Your task to perform on an android device: open app "Reddit" (install if not already installed) and enter user name: "issues@yahoo.com" and password: "belt" Image 0: 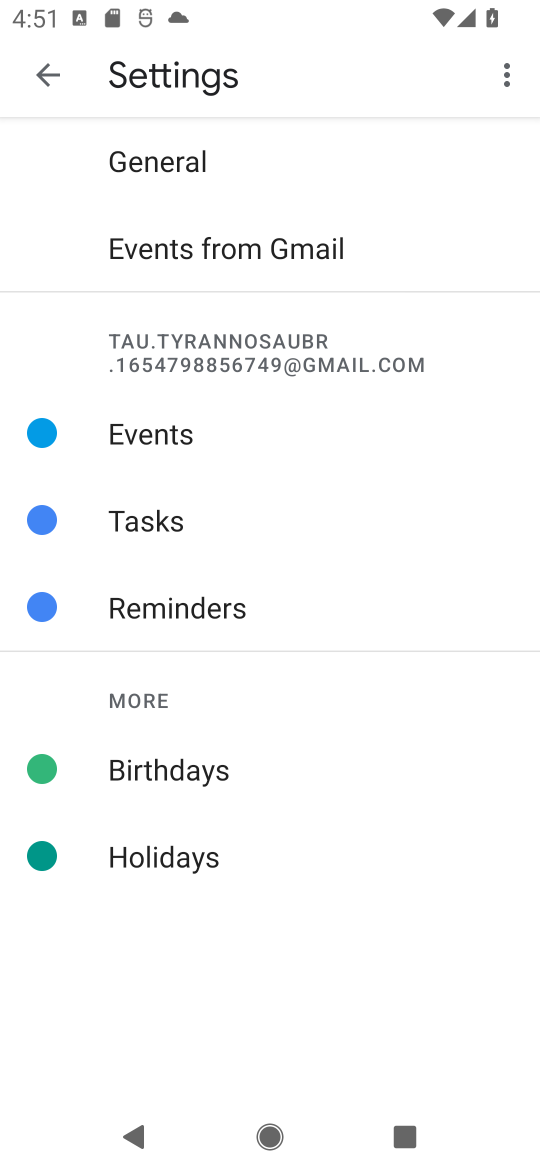
Step 0: press home button
Your task to perform on an android device: open app "Reddit" (install if not already installed) and enter user name: "issues@yahoo.com" and password: "belt" Image 1: 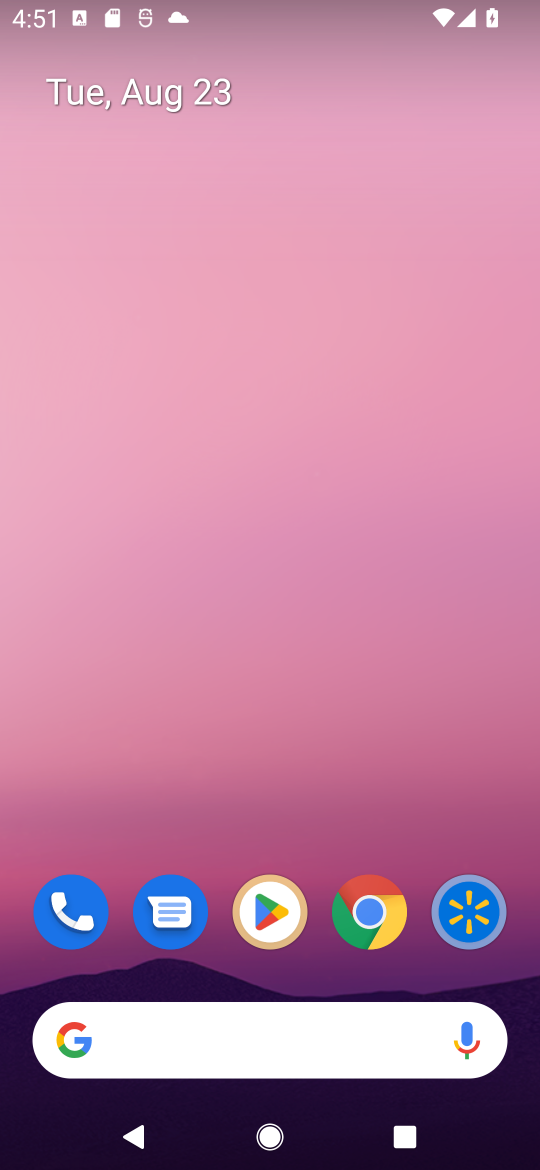
Step 1: drag from (180, 1031) to (216, 186)
Your task to perform on an android device: open app "Reddit" (install if not already installed) and enter user name: "issues@yahoo.com" and password: "belt" Image 2: 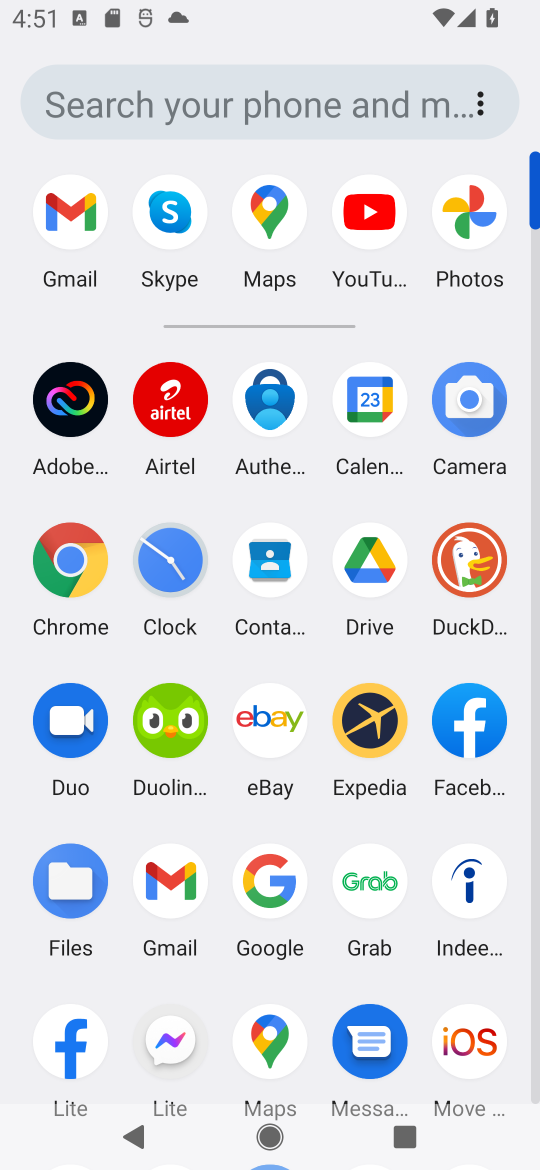
Step 2: drag from (328, 1003) to (320, 429)
Your task to perform on an android device: open app "Reddit" (install if not already installed) and enter user name: "issues@yahoo.com" and password: "belt" Image 3: 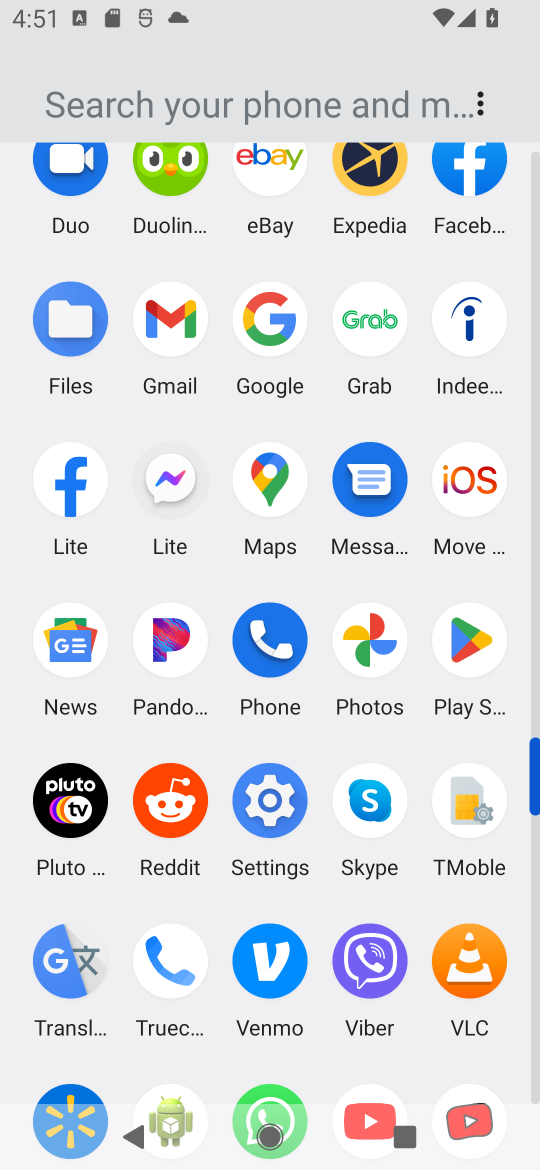
Step 3: click (478, 644)
Your task to perform on an android device: open app "Reddit" (install if not already installed) and enter user name: "issues@yahoo.com" and password: "belt" Image 4: 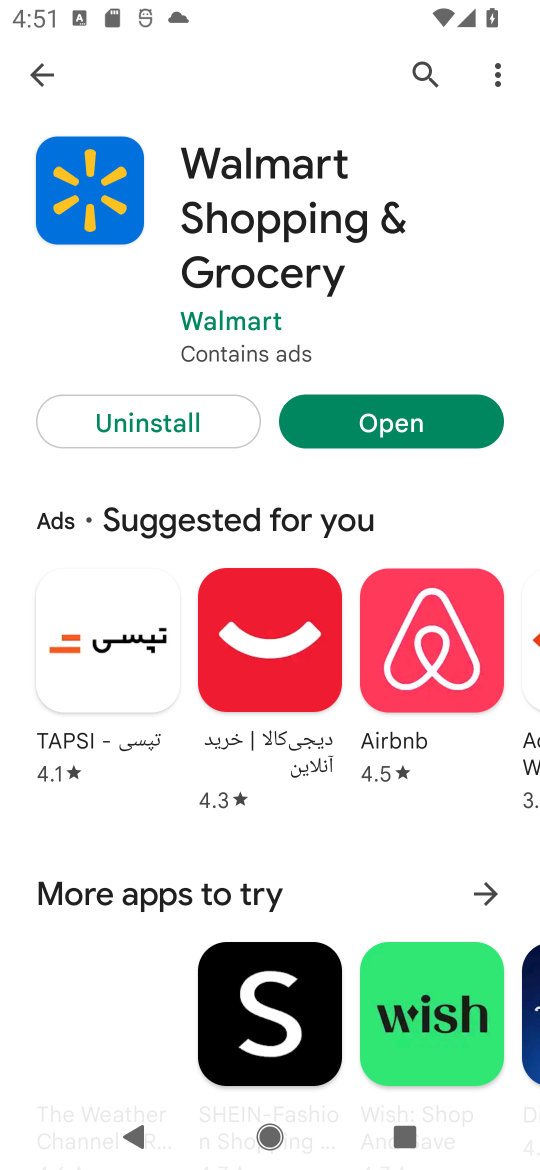
Step 4: press back button
Your task to perform on an android device: open app "Reddit" (install if not already installed) and enter user name: "issues@yahoo.com" and password: "belt" Image 5: 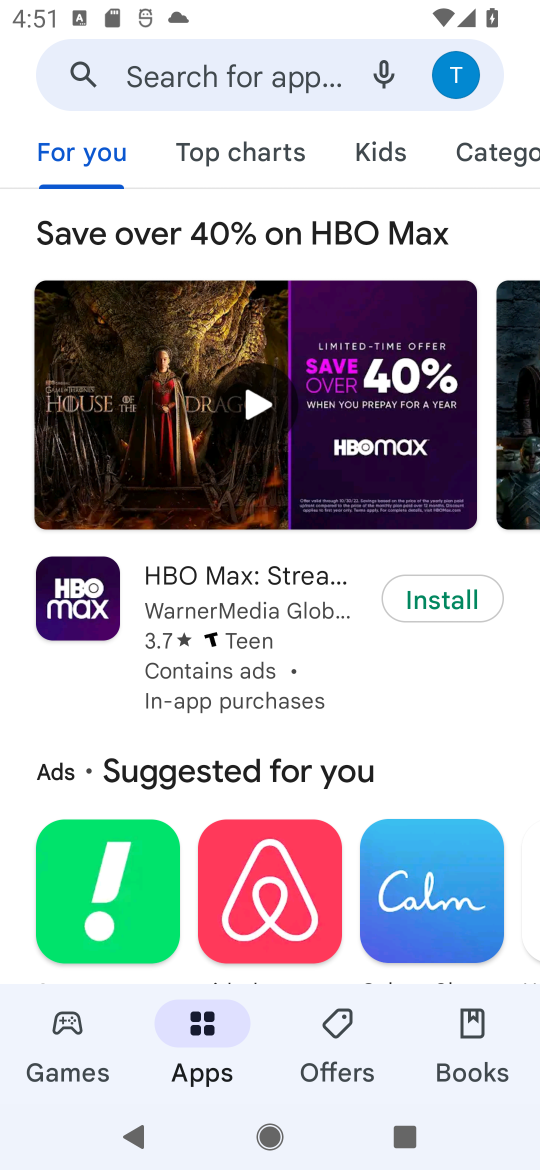
Step 5: click (263, 80)
Your task to perform on an android device: open app "Reddit" (install if not already installed) and enter user name: "issues@yahoo.com" and password: "belt" Image 6: 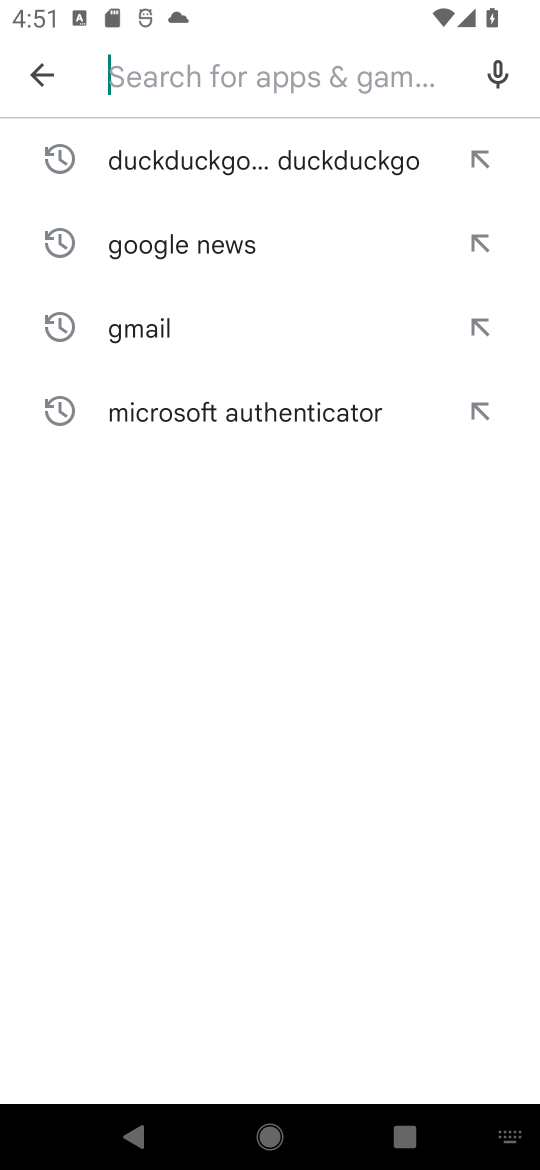
Step 6: type "Reddit"
Your task to perform on an android device: open app "Reddit" (install if not already installed) and enter user name: "issues@yahoo.com" and password: "belt" Image 7: 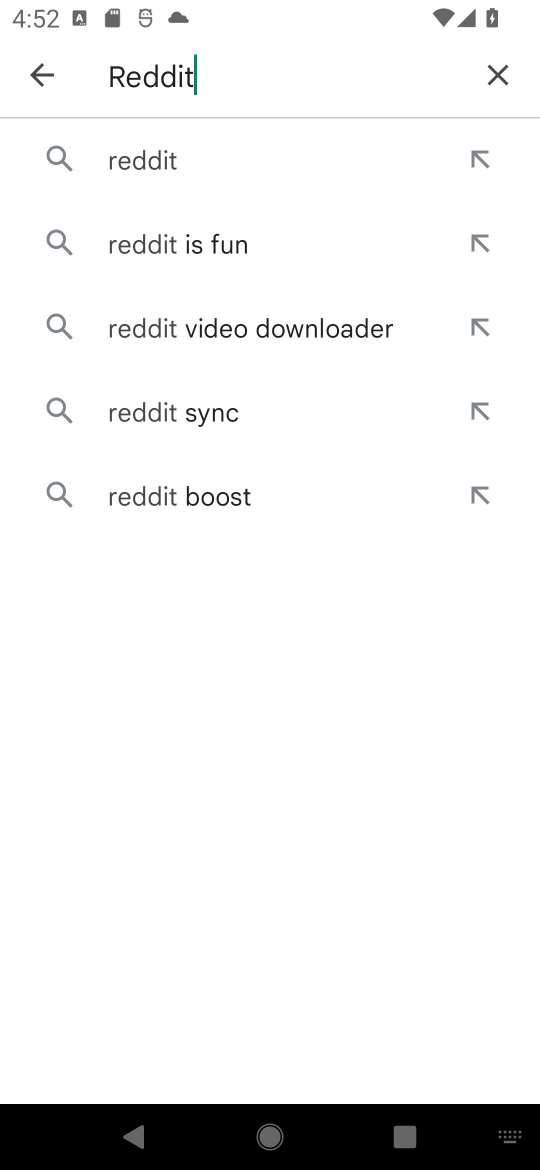
Step 7: click (93, 172)
Your task to perform on an android device: open app "Reddit" (install if not already installed) and enter user name: "issues@yahoo.com" and password: "belt" Image 8: 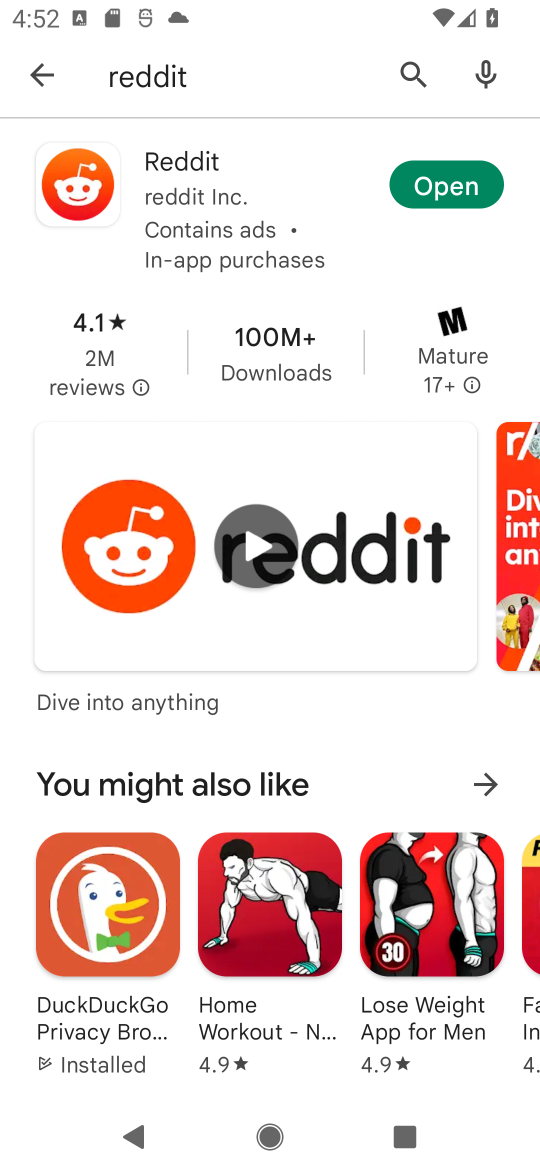
Step 8: click (450, 198)
Your task to perform on an android device: open app "Reddit" (install if not already installed) and enter user name: "issues@yahoo.com" and password: "belt" Image 9: 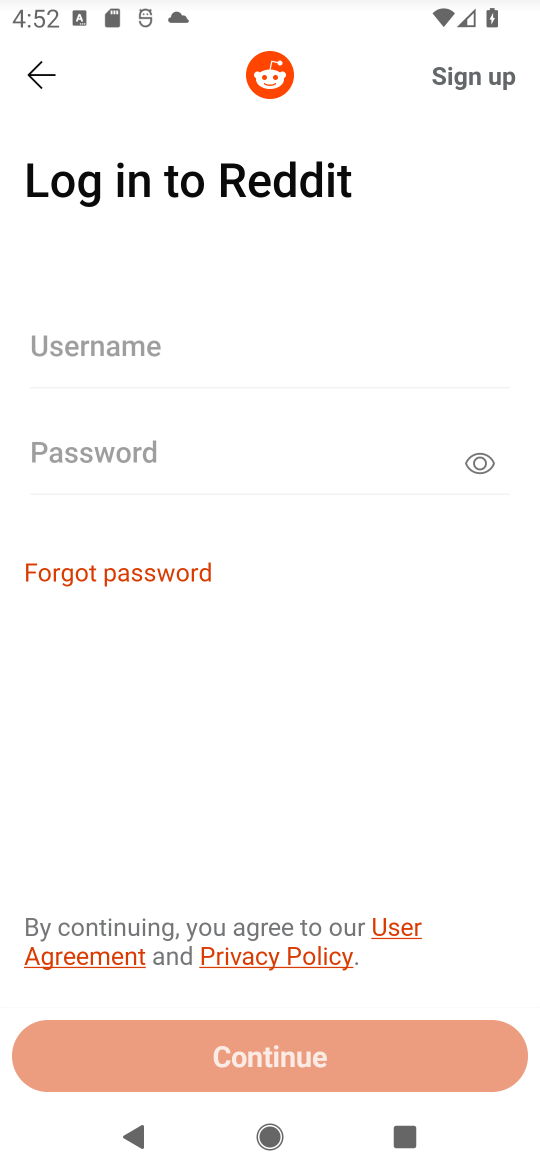
Step 9: click (261, 352)
Your task to perform on an android device: open app "Reddit" (install if not already installed) and enter user name: "issues@yahoo.com" and password: "belt" Image 10: 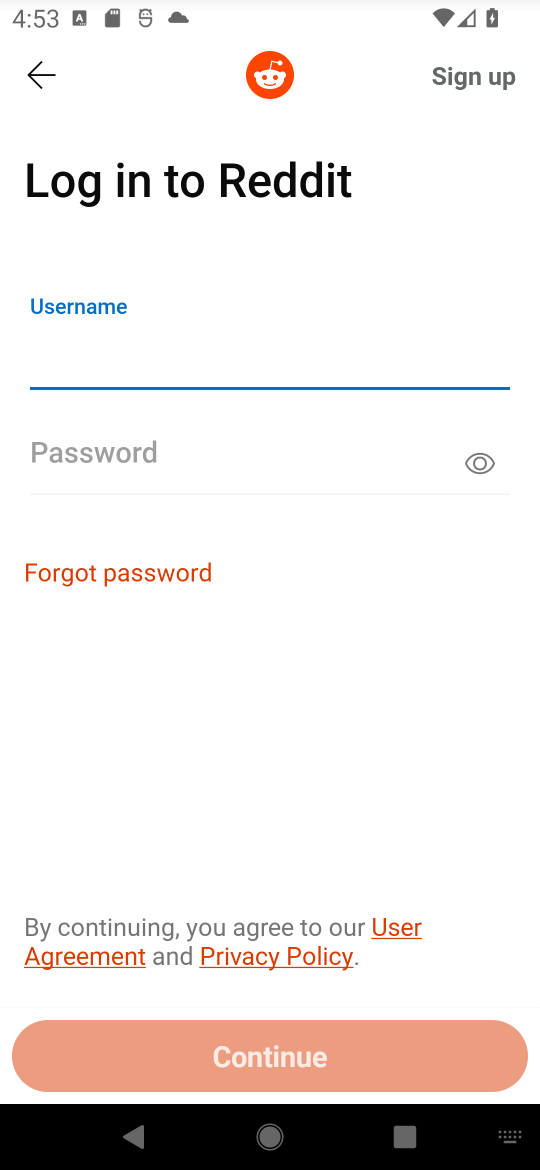
Step 10: type "issues@yahoo.com"
Your task to perform on an android device: open app "Reddit" (install if not already installed) and enter user name: "issues@yahoo.com" and password: "belt" Image 11: 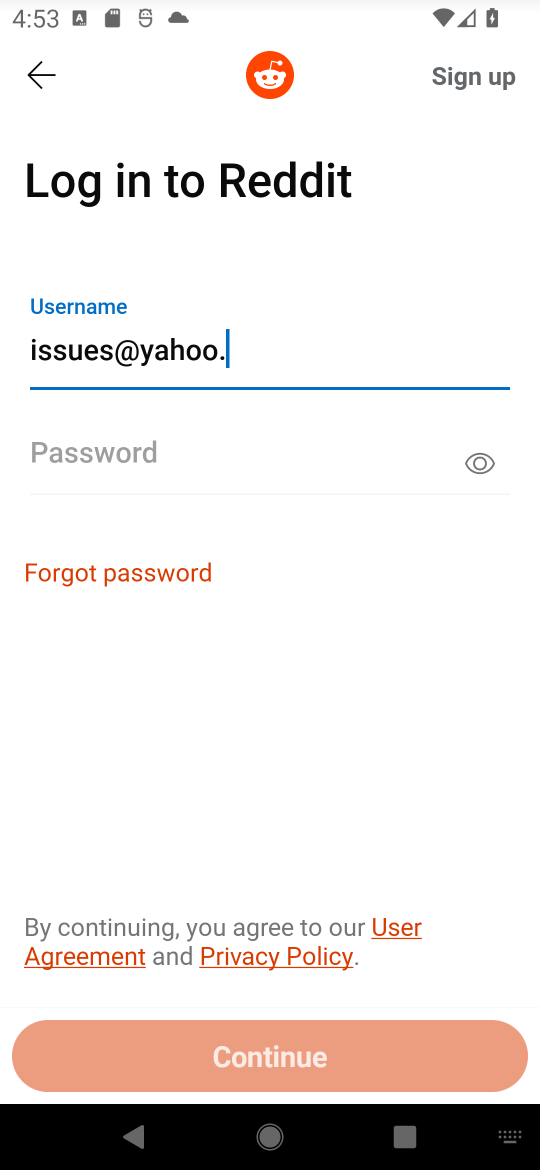
Step 11: type ""
Your task to perform on an android device: open app "Reddit" (install if not already installed) and enter user name: "issues@yahoo.com" and password: "belt" Image 12: 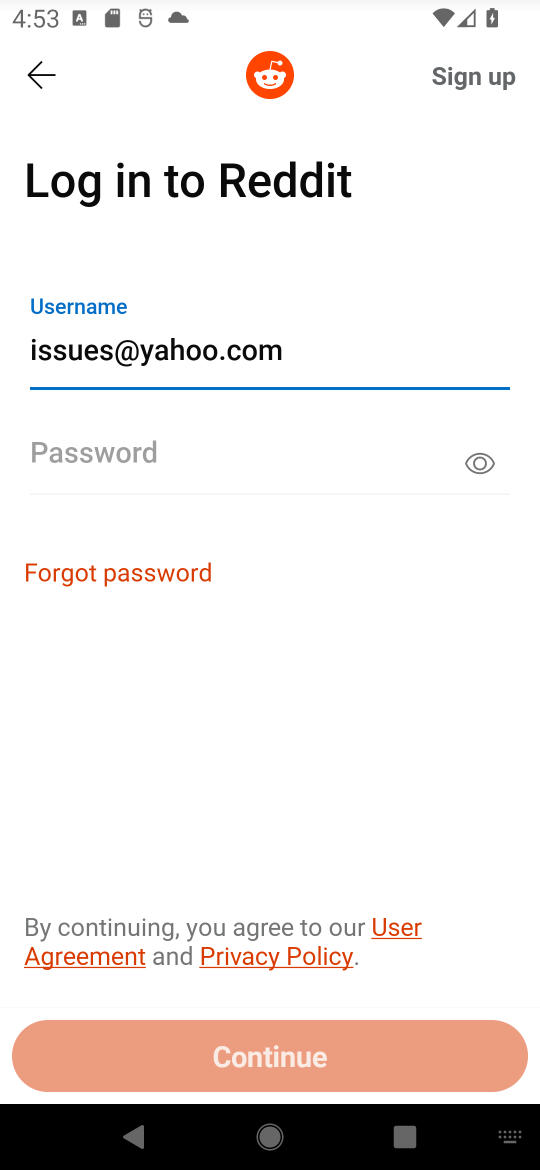
Step 12: click (86, 455)
Your task to perform on an android device: open app "Reddit" (install if not already installed) and enter user name: "issues@yahoo.com" and password: "belt" Image 13: 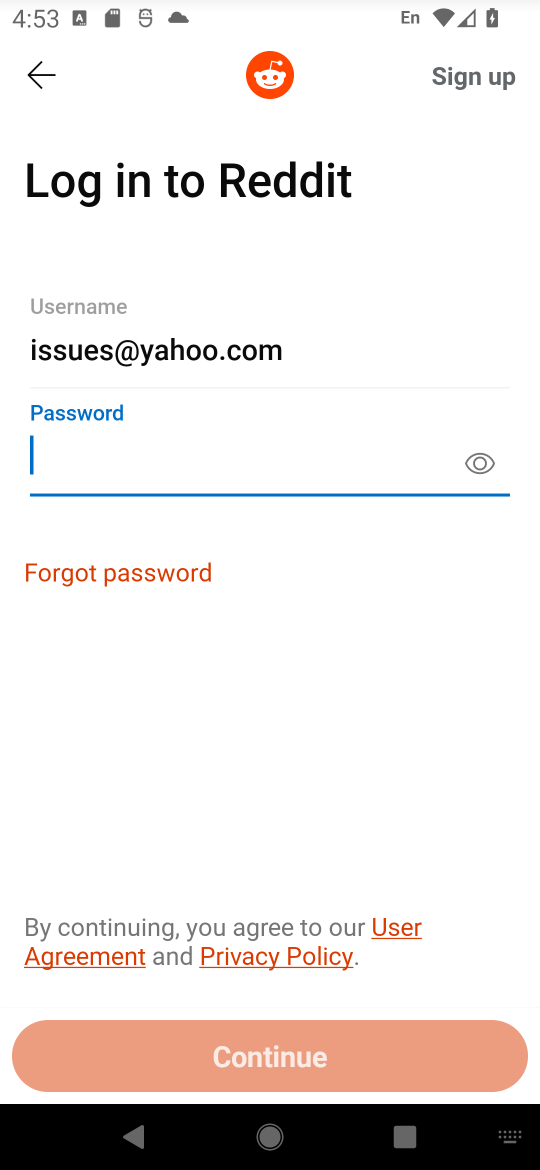
Step 13: type "belt"
Your task to perform on an android device: open app "Reddit" (install if not already installed) and enter user name: "issues@yahoo.com" and password: "belt" Image 14: 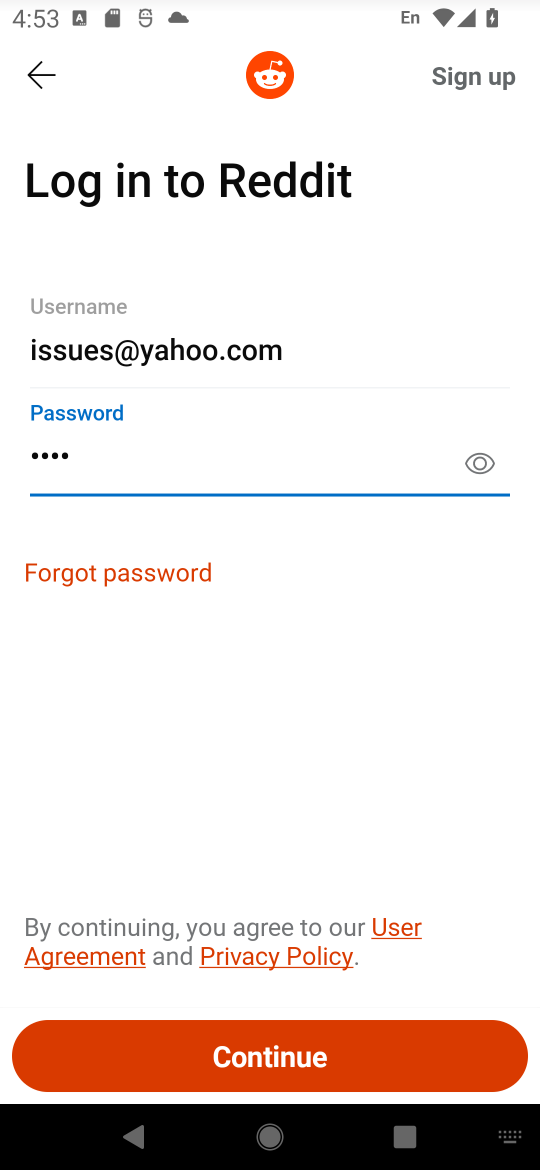
Step 14: task complete